Your task to perform on an android device: Open Google Chrome and click the shortcut for Amazon.com Image 0: 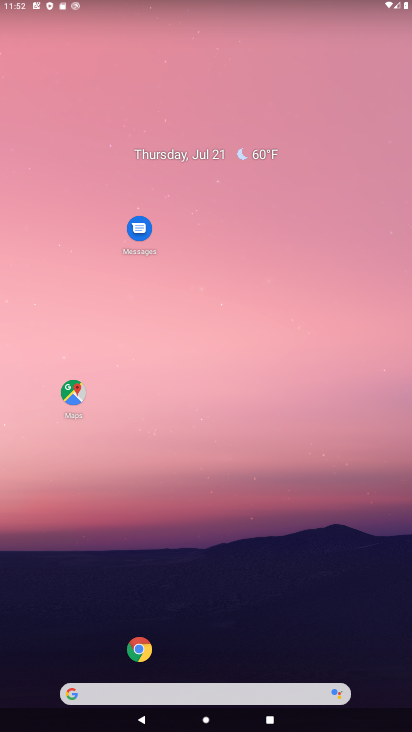
Step 0: click (138, 657)
Your task to perform on an android device: Open Google Chrome and click the shortcut for Amazon.com Image 1: 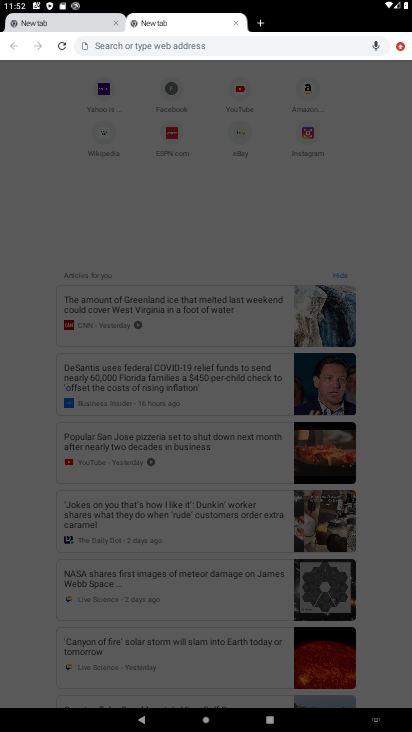
Step 1: click (130, 53)
Your task to perform on an android device: Open Google Chrome and click the shortcut for Amazon.com Image 2: 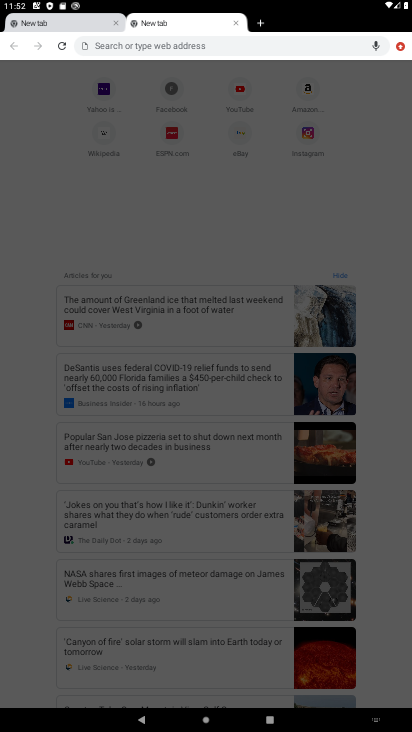
Step 2: click (83, 28)
Your task to perform on an android device: Open Google Chrome and click the shortcut for Amazon.com Image 3: 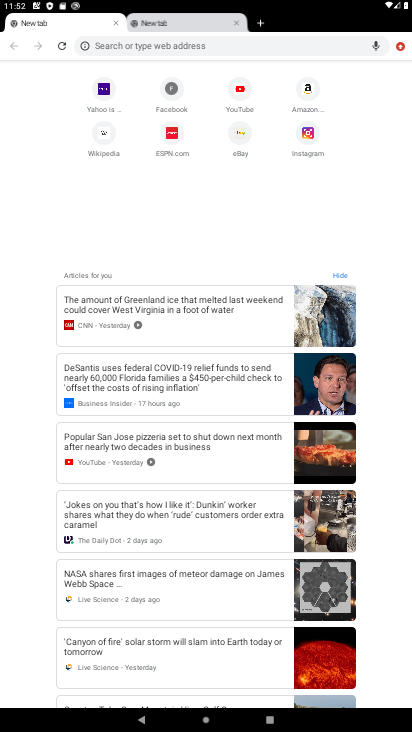
Step 3: task complete